Your task to perform on an android device: move a message to another label in the gmail app Image 0: 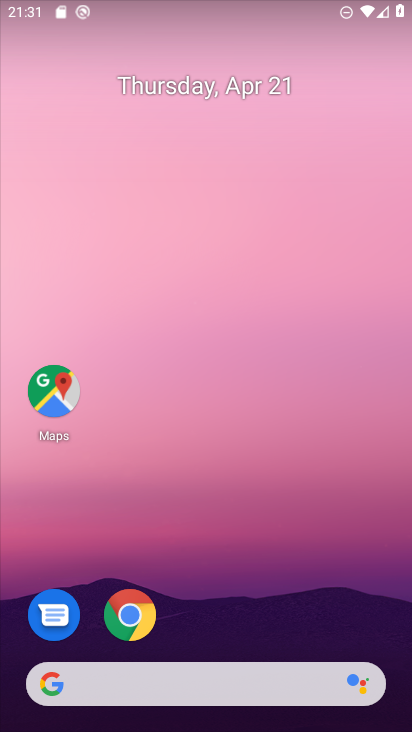
Step 0: drag from (206, 507) to (244, 156)
Your task to perform on an android device: move a message to another label in the gmail app Image 1: 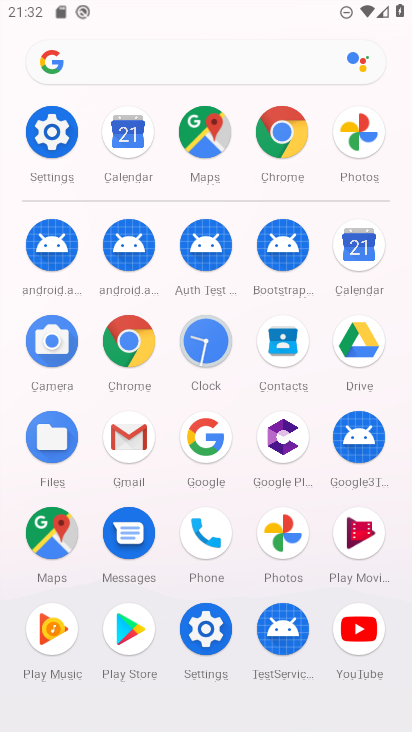
Step 1: click (132, 427)
Your task to perform on an android device: move a message to another label in the gmail app Image 2: 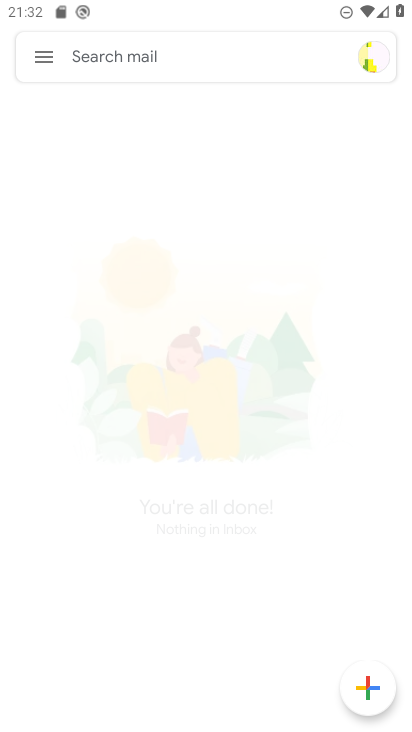
Step 2: click (33, 51)
Your task to perform on an android device: move a message to another label in the gmail app Image 3: 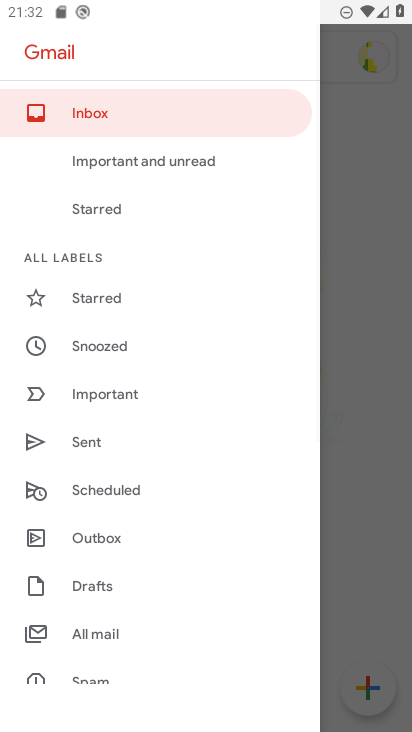
Step 3: drag from (149, 601) to (144, 354)
Your task to perform on an android device: move a message to another label in the gmail app Image 4: 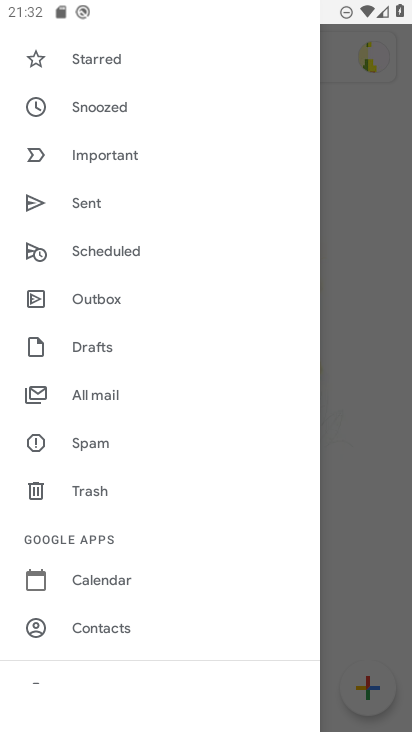
Step 4: drag from (141, 578) to (155, 282)
Your task to perform on an android device: move a message to another label in the gmail app Image 5: 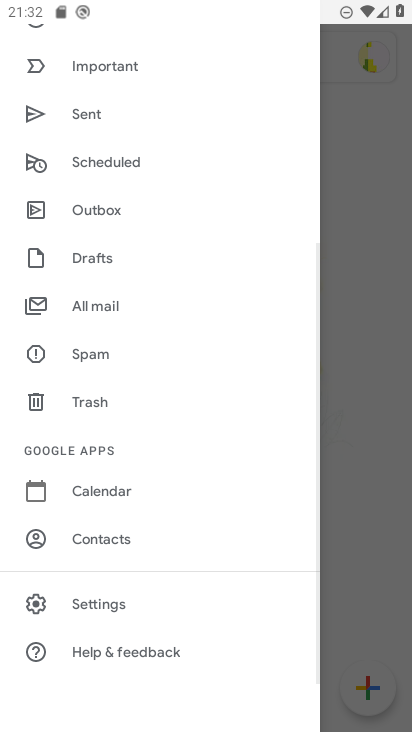
Step 5: click (115, 602)
Your task to perform on an android device: move a message to another label in the gmail app Image 6: 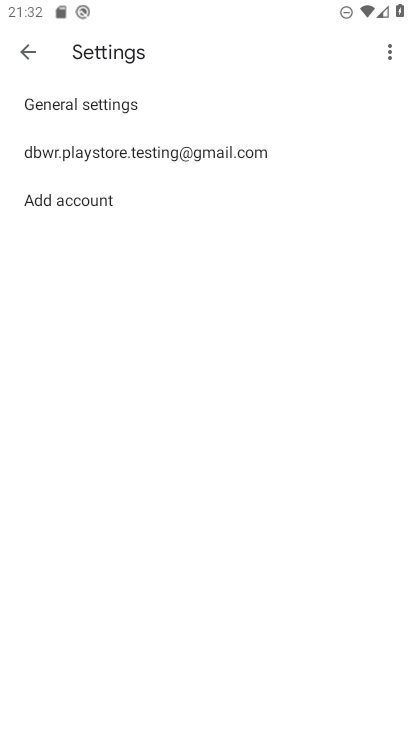
Step 6: click (15, 57)
Your task to perform on an android device: move a message to another label in the gmail app Image 7: 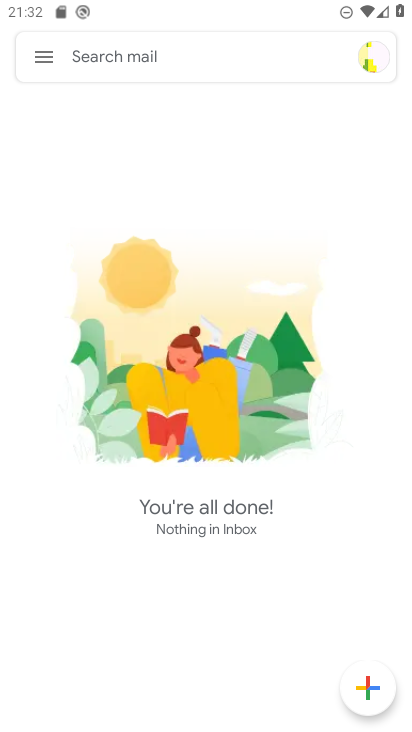
Step 7: click (246, 369)
Your task to perform on an android device: move a message to another label in the gmail app Image 8: 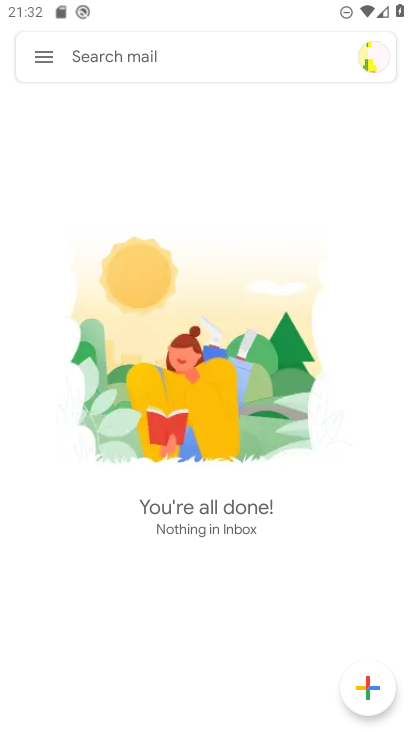
Step 8: task complete